Your task to perform on an android device: Go to network settings Image 0: 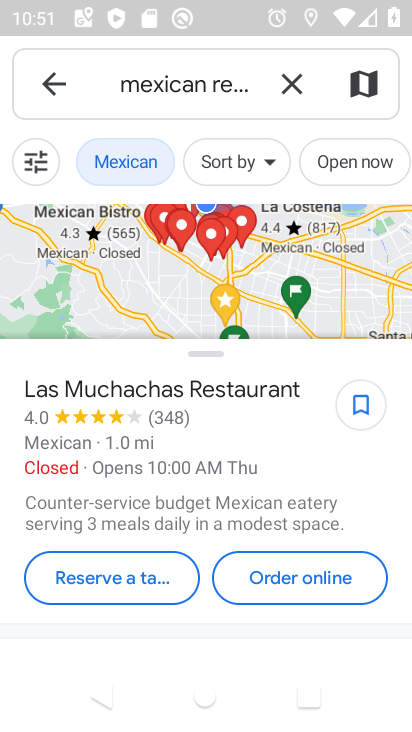
Step 0: press home button
Your task to perform on an android device: Go to network settings Image 1: 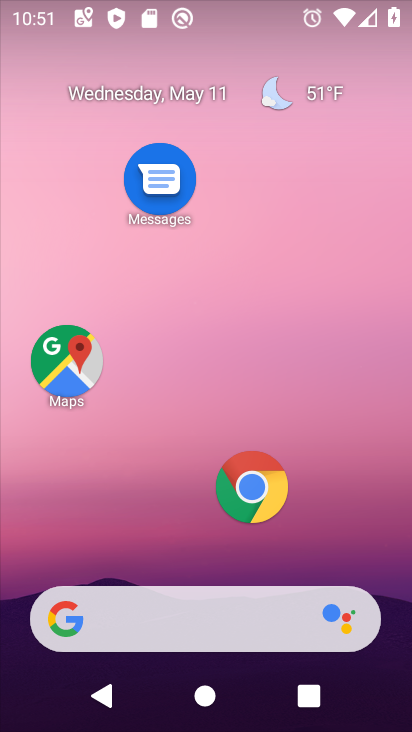
Step 1: drag from (157, 527) to (198, 134)
Your task to perform on an android device: Go to network settings Image 2: 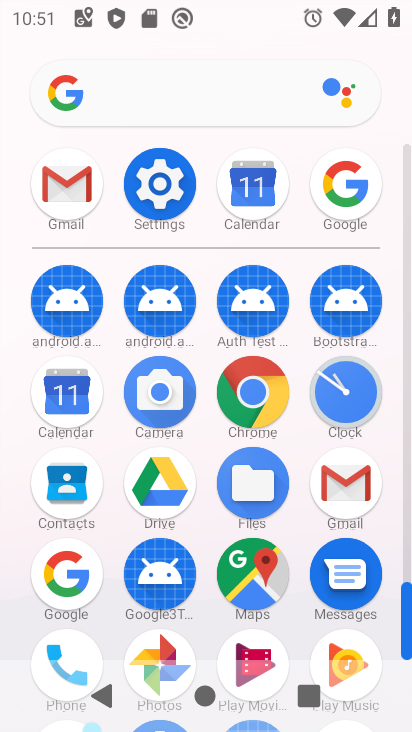
Step 2: click (159, 200)
Your task to perform on an android device: Go to network settings Image 3: 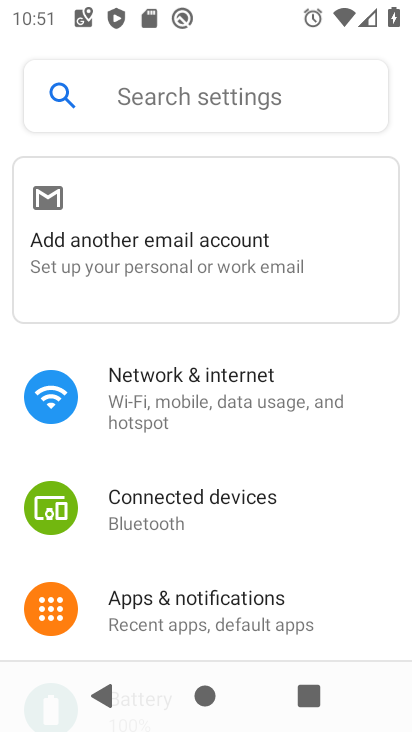
Step 3: click (161, 373)
Your task to perform on an android device: Go to network settings Image 4: 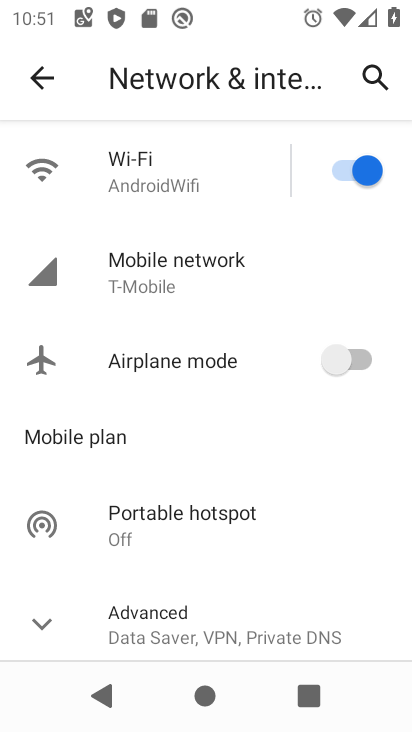
Step 4: click (135, 291)
Your task to perform on an android device: Go to network settings Image 5: 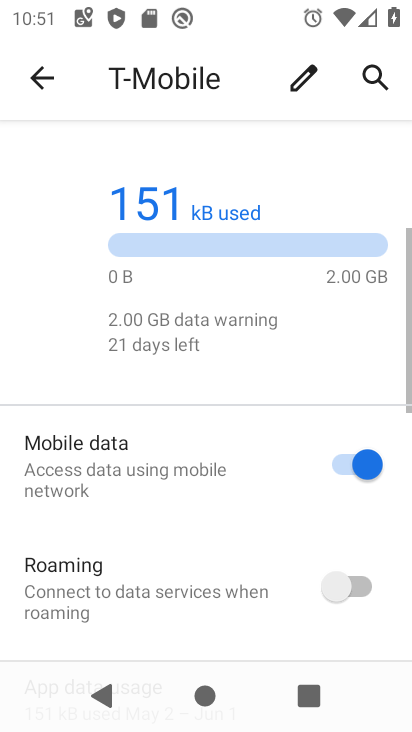
Step 5: task complete